Your task to perform on an android device: Open location settings Image 0: 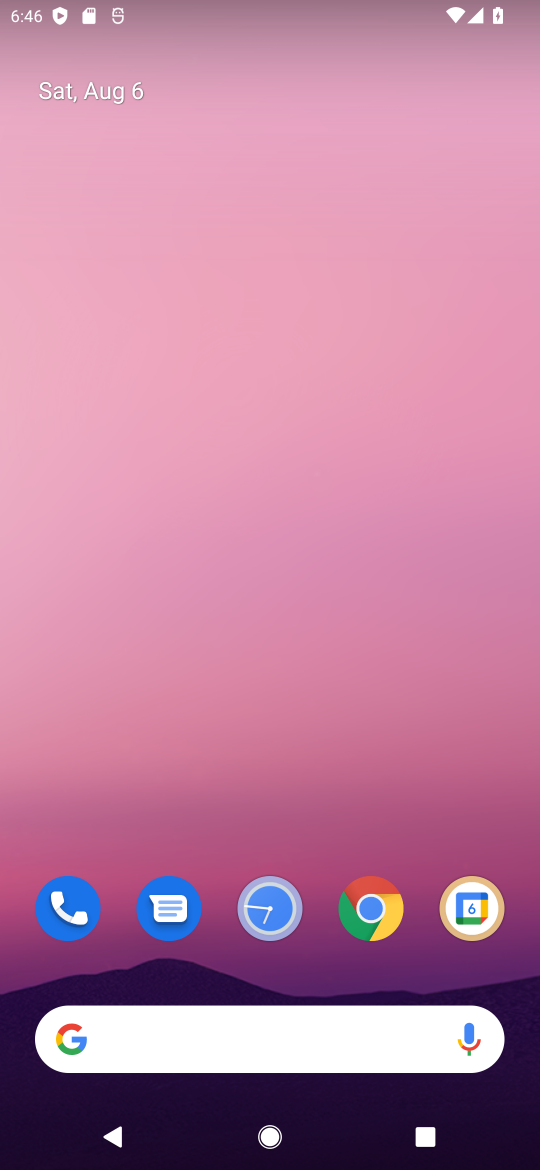
Step 0: drag from (397, 824) to (341, 284)
Your task to perform on an android device: Open location settings Image 1: 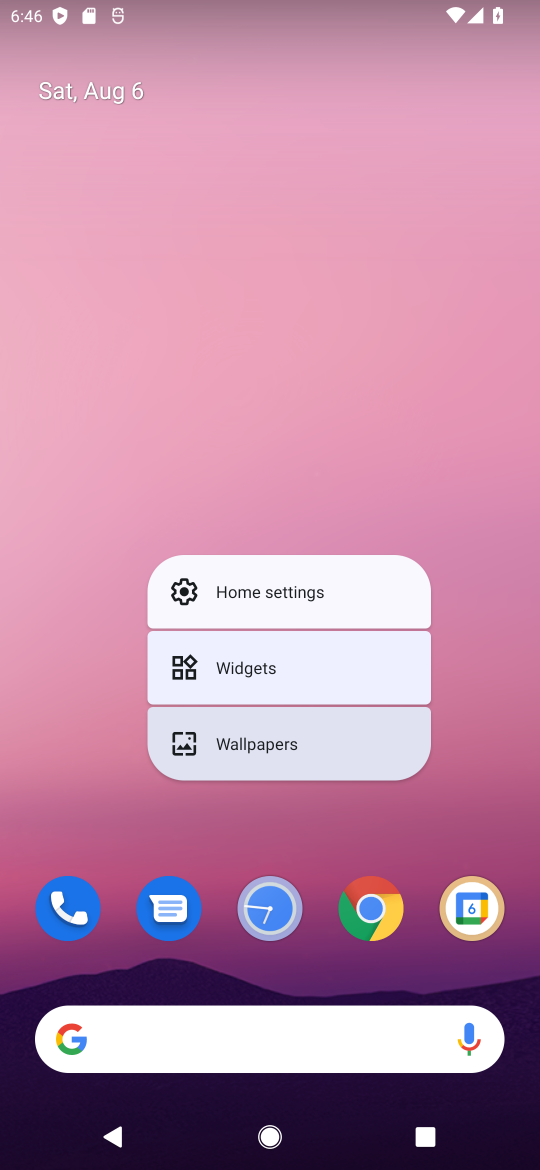
Step 1: click (336, 335)
Your task to perform on an android device: Open location settings Image 2: 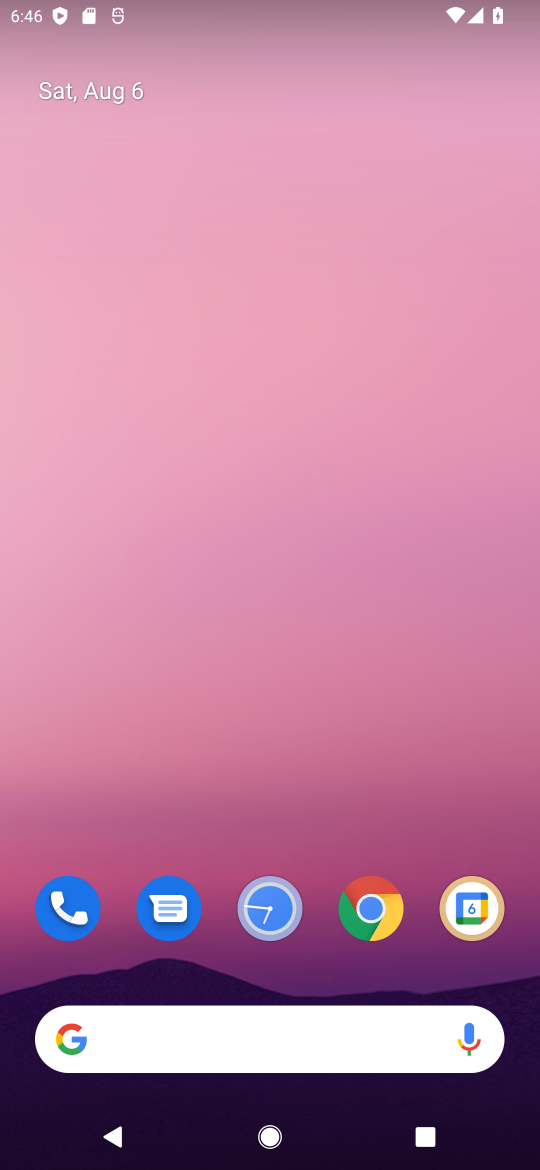
Step 2: drag from (422, 866) to (314, 176)
Your task to perform on an android device: Open location settings Image 3: 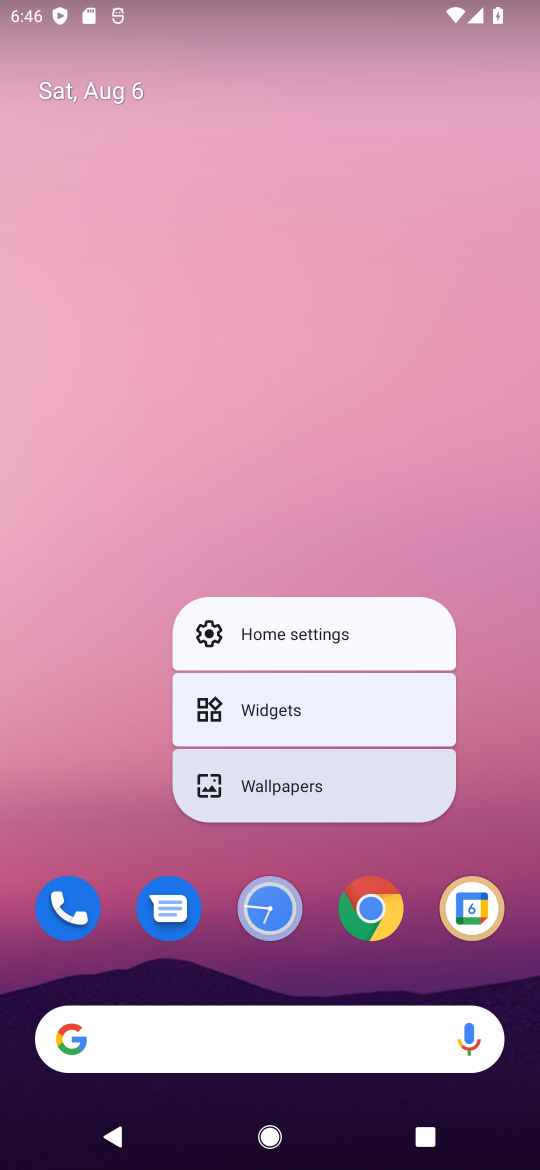
Step 3: click (522, 704)
Your task to perform on an android device: Open location settings Image 4: 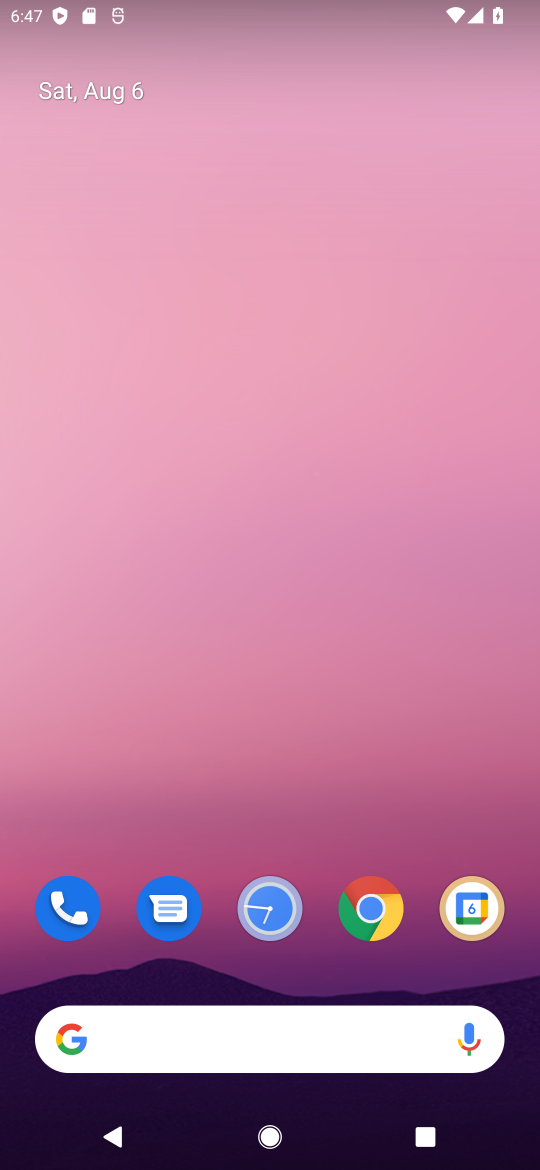
Step 4: drag from (420, 870) to (357, 152)
Your task to perform on an android device: Open location settings Image 5: 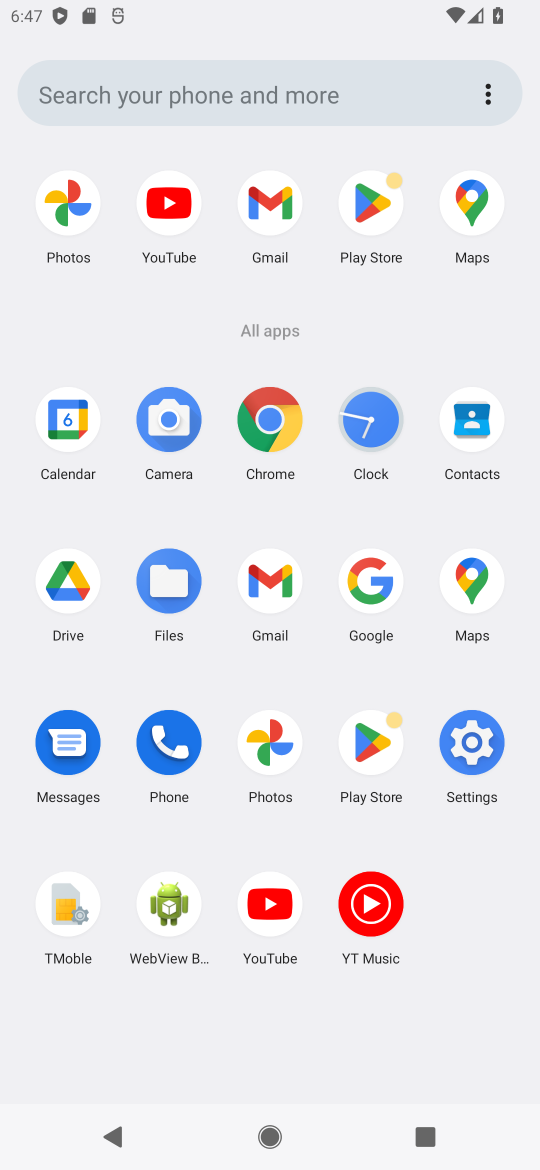
Step 5: click (466, 762)
Your task to perform on an android device: Open location settings Image 6: 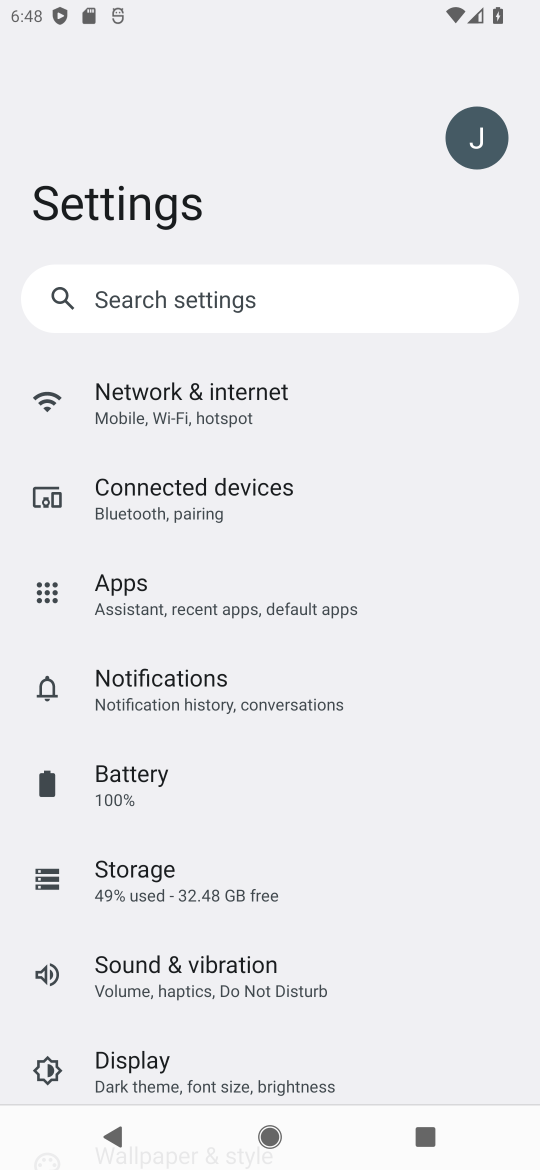
Step 6: drag from (287, 816) to (253, 402)
Your task to perform on an android device: Open location settings Image 7: 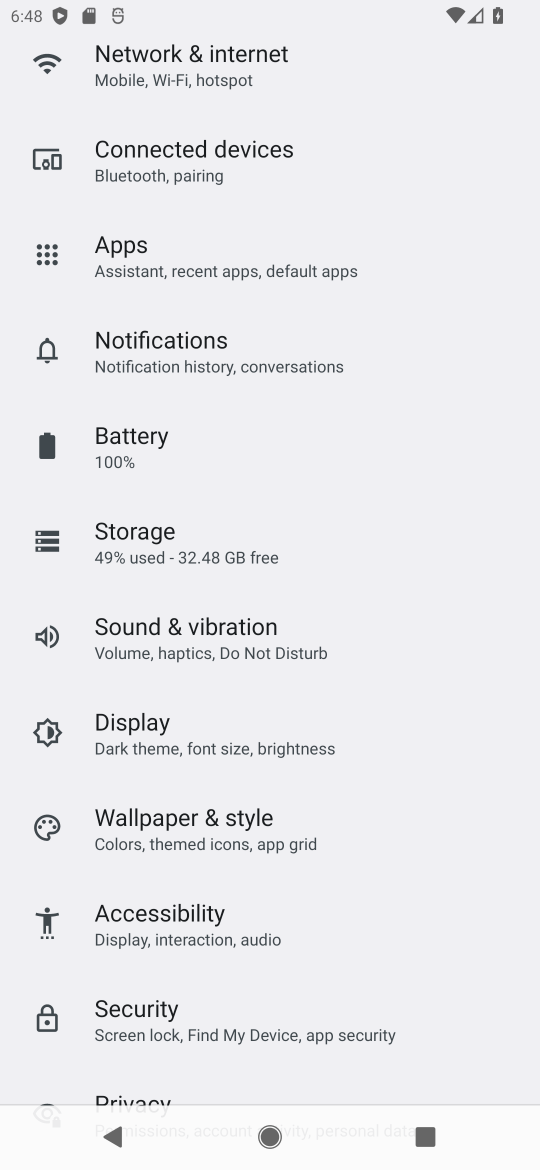
Step 7: drag from (281, 889) to (201, 449)
Your task to perform on an android device: Open location settings Image 8: 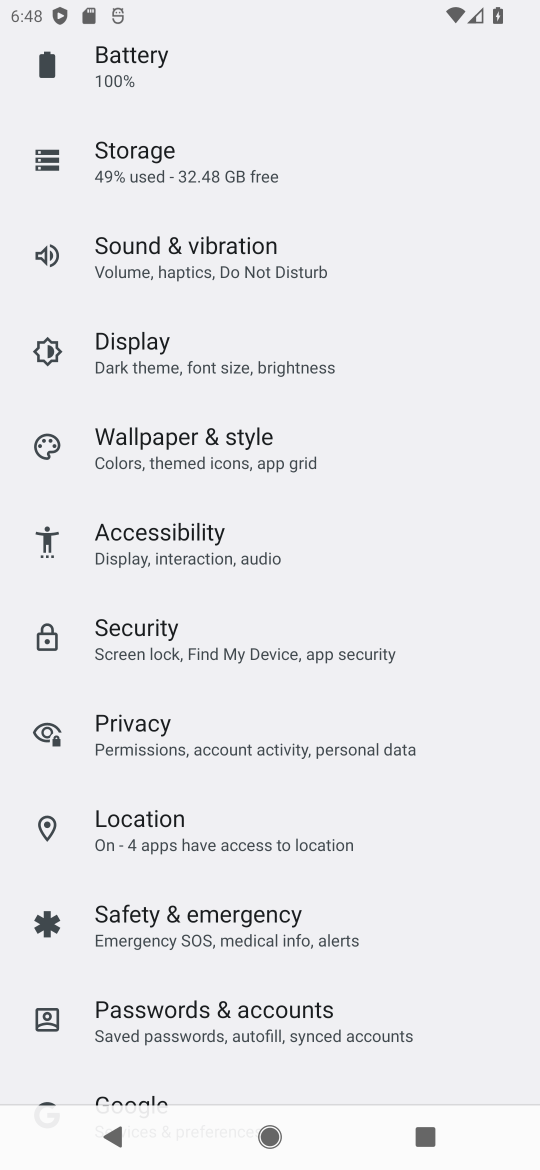
Step 8: click (213, 833)
Your task to perform on an android device: Open location settings Image 9: 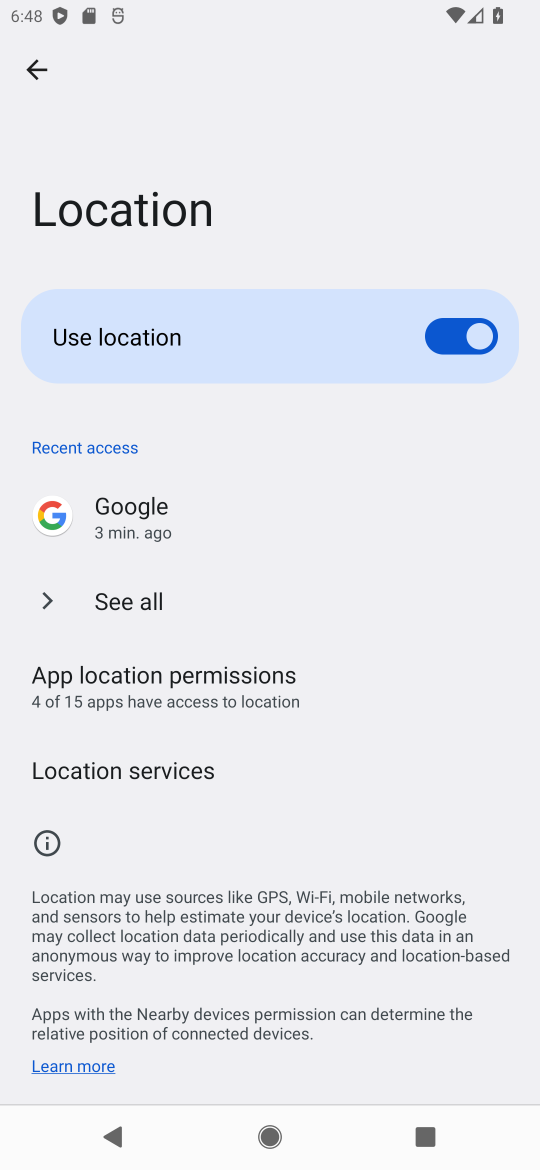
Step 9: task complete